Your task to perform on an android device: Open maps Image 0: 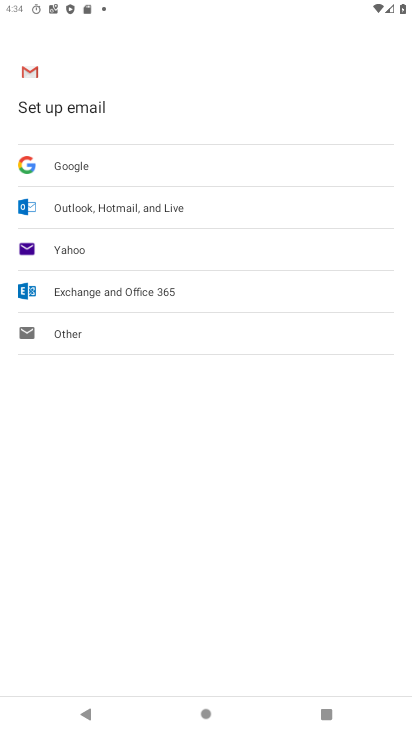
Step 0: press back button
Your task to perform on an android device: Open maps Image 1: 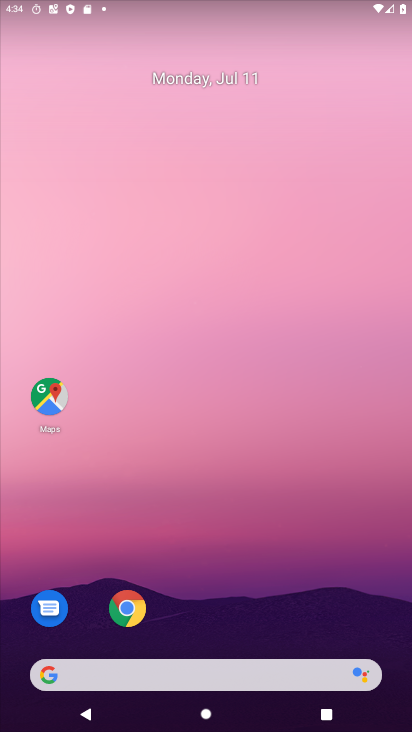
Step 1: drag from (276, 703) to (202, 172)
Your task to perform on an android device: Open maps Image 2: 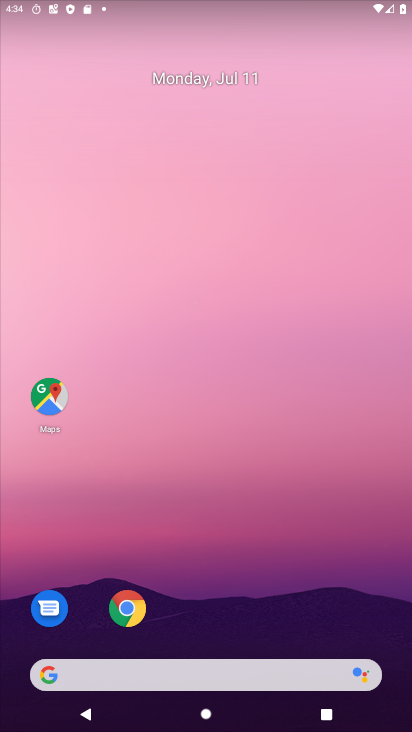
Step 2: click (47, 404)
Your task to perform on an android device: Open maps Image 3: 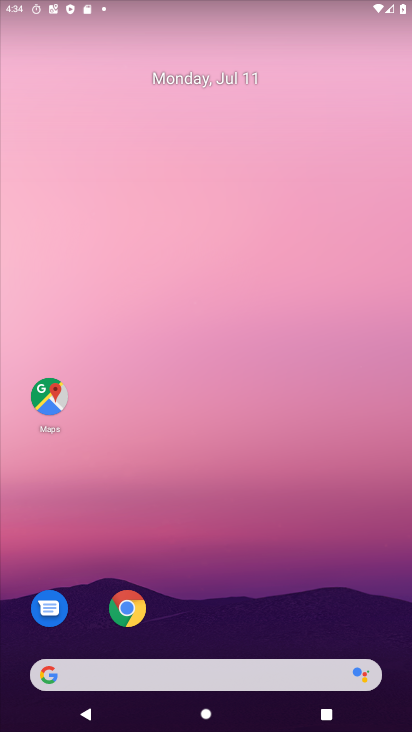
Step 3: click (52, 388)
Your task to perform on an android device: Open maps Image 4: 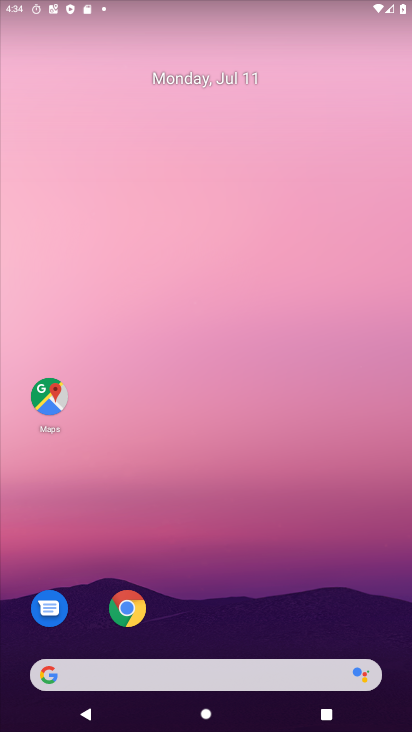
Step 4: click (52, 388)
Your task to perform on an android device: Open maps Image 5: 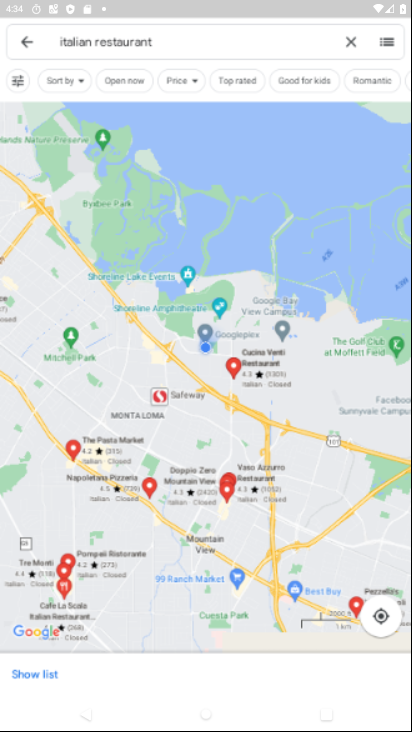
Step 5: click (57, 387)
Your task to perform on an android device: Open maps Image 6: 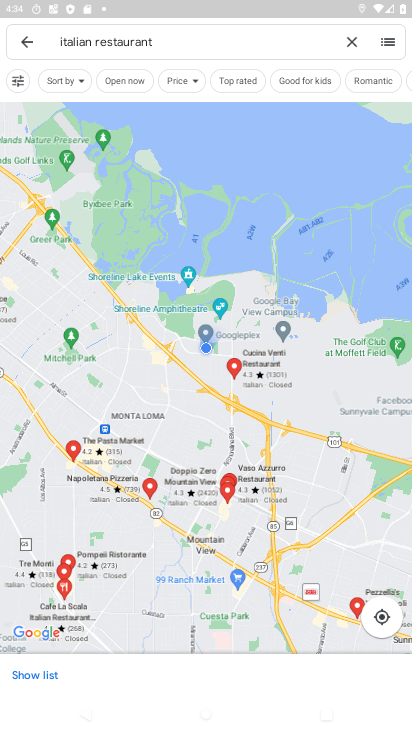
Step 6: task complete